Your task to perform on an android device: Search for seafood restaurants on Google Maps Image 0: 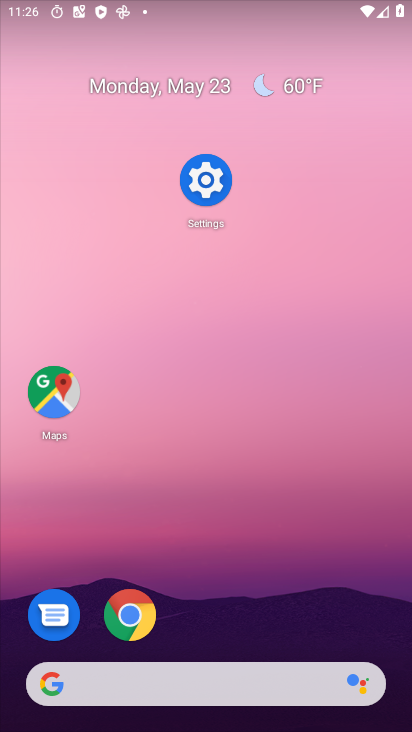
Step 0: click (52, 390)
Your task to perform on an android device: Search for seafood restaurants on Google Maps Image 1: 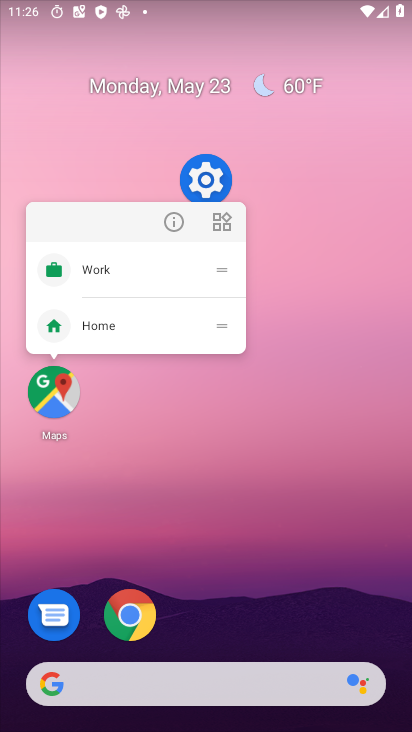
Step 1: click (52, 390)
Your task to perform on an android device: Search for seafood restaurants on Google Maps Image 2: 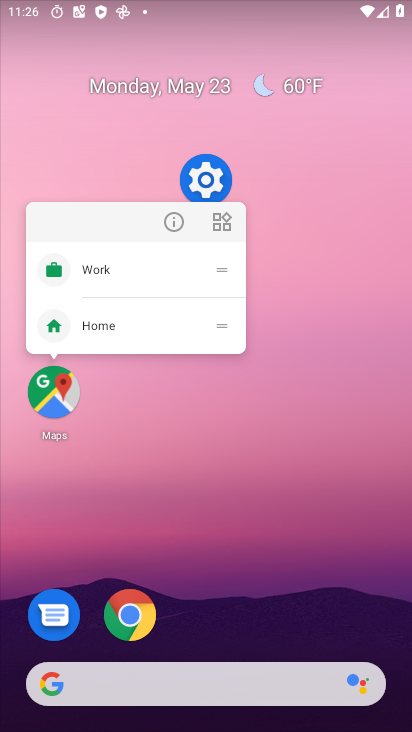
Step 2: click (52, 390)
Your task to perform on an android device: Search for seafood restaurants on Google Maps Image 3: 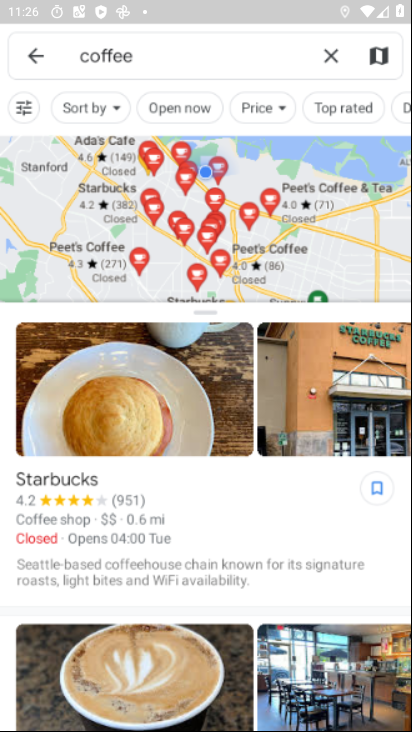
Step 3: click (244, 59)
Your task to perform on an android device: Search for seafood restaurants on Google Maps Image 4: 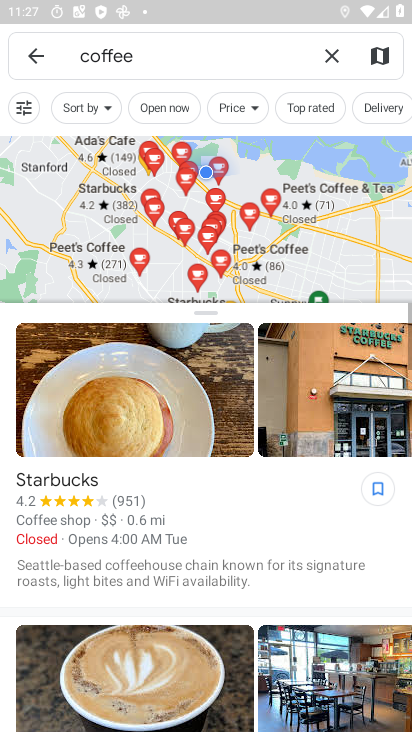
Step 4: click (329, 58)
Your task to perform on an android device: Search for seafood restaurants on Google Maps Image 5: 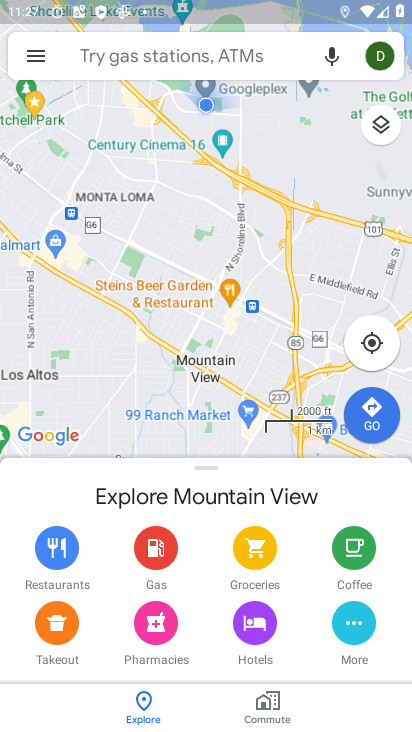
Step 5: click (150, 51)
Your task to perform on an android device: Search for seafood restaurants on Google Maps Image 6: 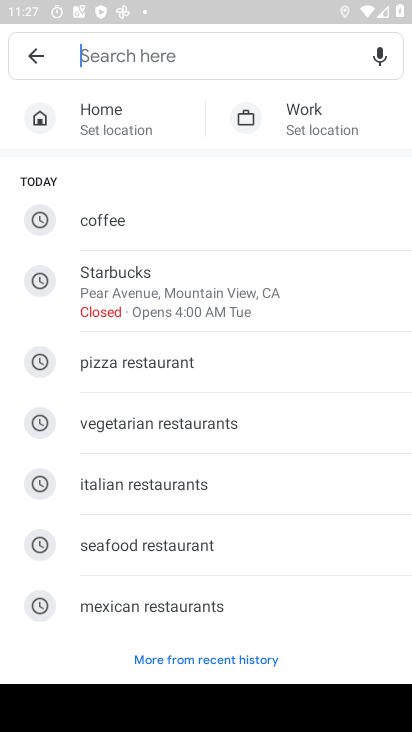
Step 6: click (150, 552)
Your task to perform on an android device: Search for seafood restaurants on Google Maps Image 7: 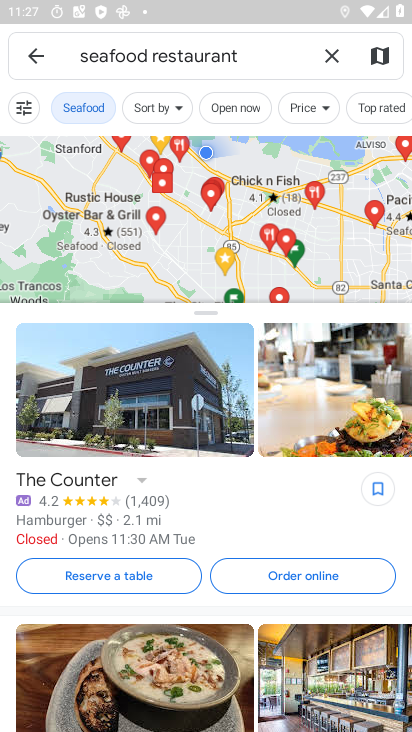
Step 7: task complete